Your task to perform on an android device: turn off picture-in-picture Image 0: 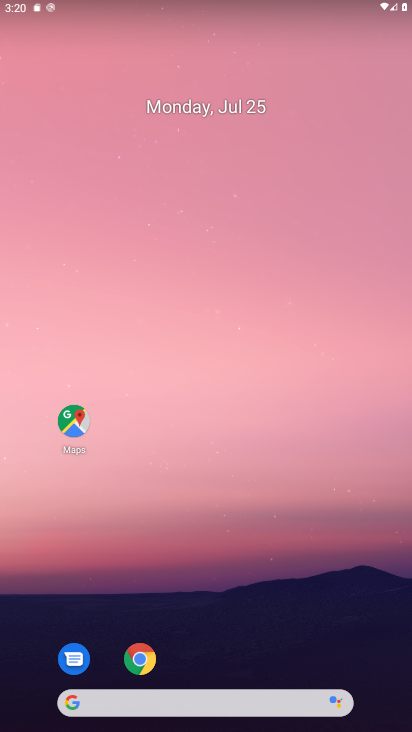
Step 0: drag from (196, 157) to (119, 320)
Your task to perform on an android device: turn off picture-in-picture Image 1: 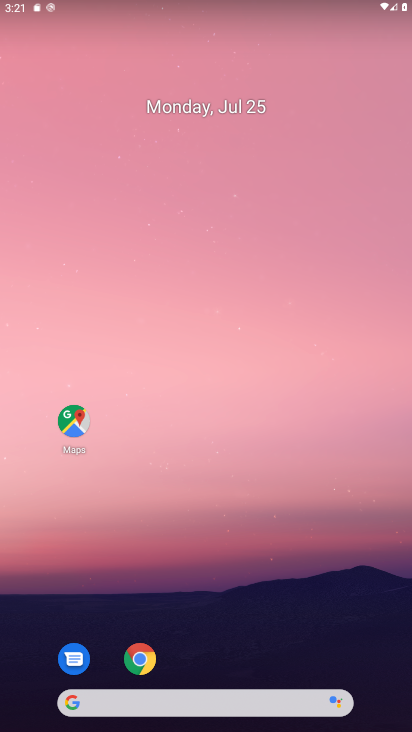
Step 1: drag from (198, 541) to (141, 79)
Your task to perform on an android device: turn off picture-in-picture Image 2: 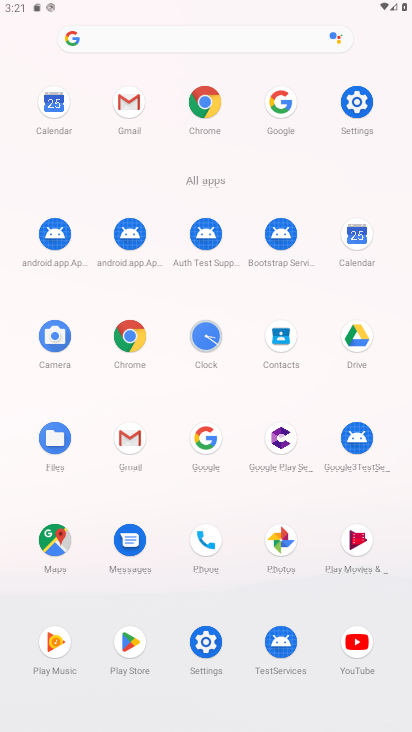
Step 2: click (357, 110)
Your task to perform on an android device: turn off picture-in-picture Image 3: 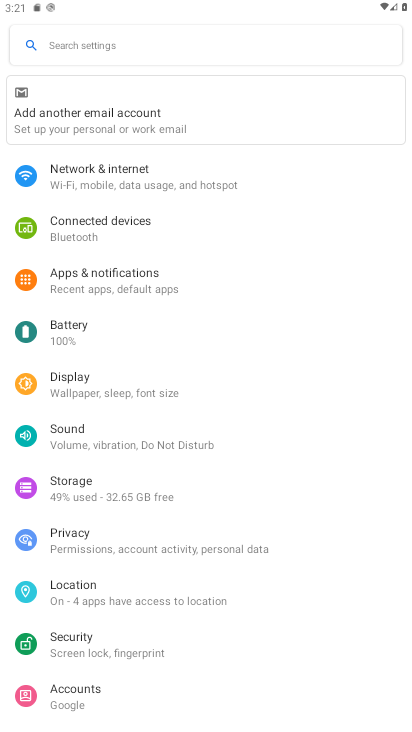
Step 3: click (136, 292)
Your task to perform on an android device: turn off picture-in-picture Image 4: 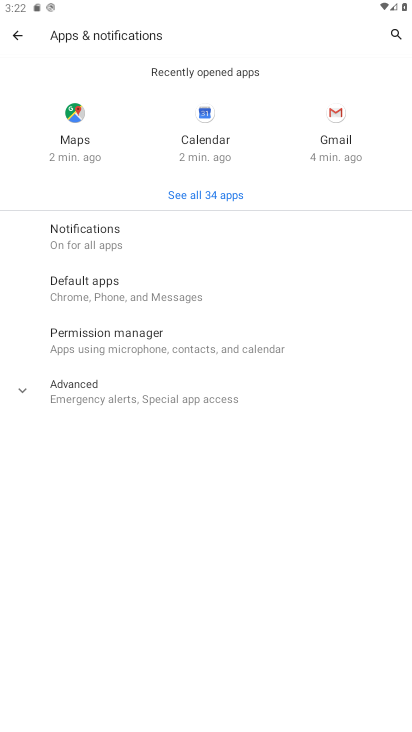
Step 4: click (69, 393)
Your task to perform on an android device: turn off picture-in-picture Image 5: 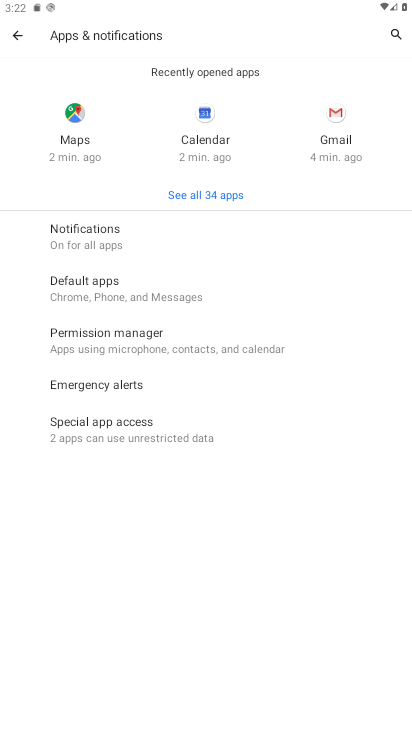
Step 5: click (47, 442)
Your task to perform on an android device: turn off picture-in-picture Image 6: 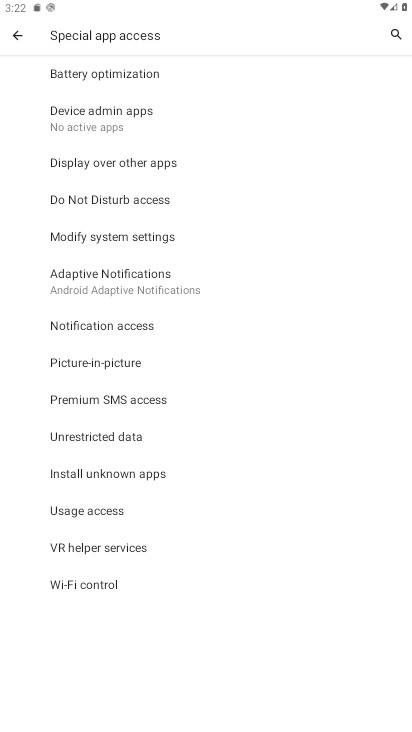
Step 6: click (106, 366)
Your task to perform on an android device: turn off picture-in-picture Image 7: 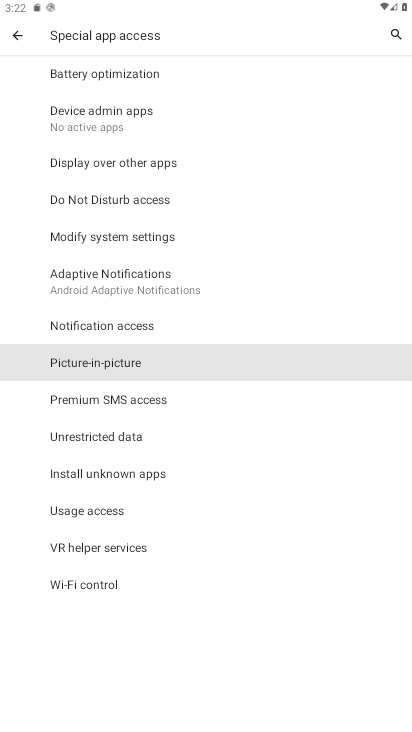
Step 7: click (106, 366)
Your task to perform on an android device: turn off picture-in-picture Image 8: 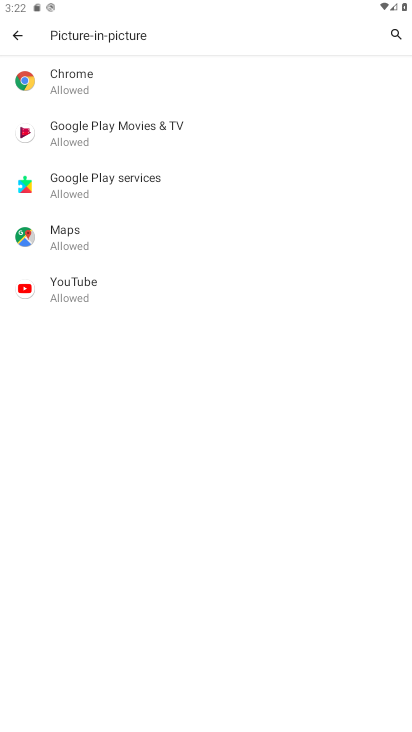
Step 8: click (64, 83)
Your task to perform on an android device: turn off picture-in-picture Image 9: 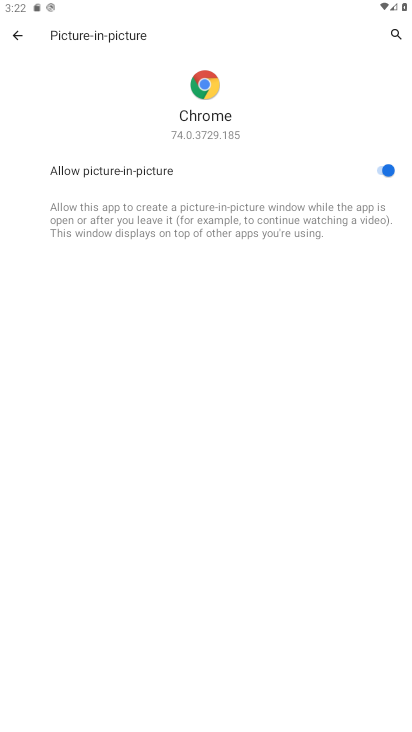
Step 9: click (374, 171)
Your task to perform on an android device: turn off picture-in-picture Image 10: 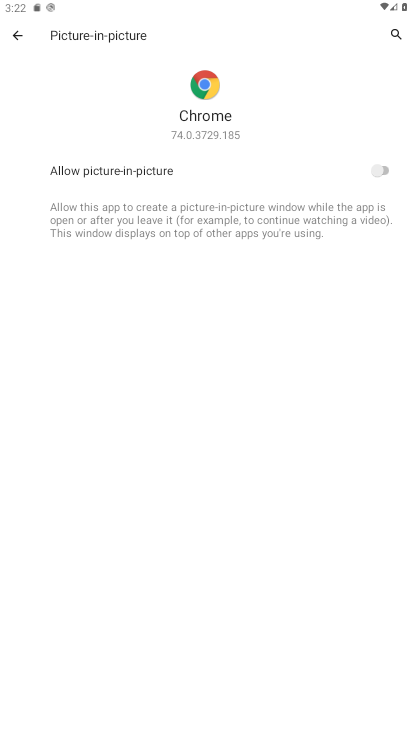
Step 10: task complete